Your task to perform on an android device: Open ESPN.com Image 0: 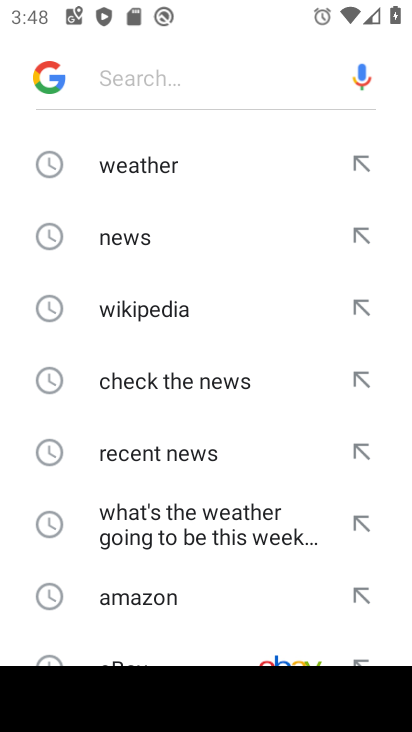
Step 0: press back button
Your task to perform on an android device: Open ESPN.com Image 1: 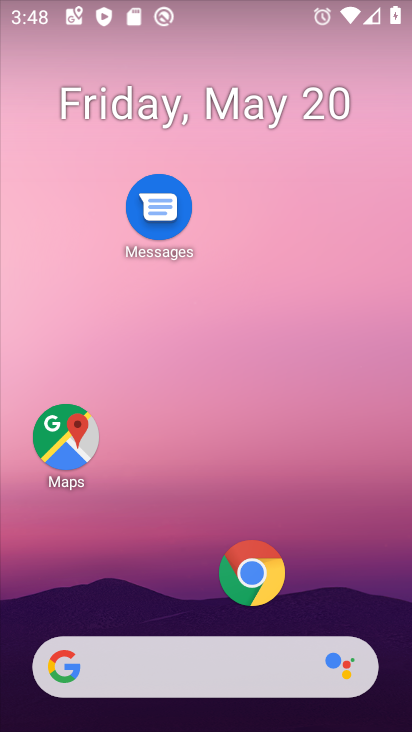
Step 1: click (254, 577)
Your task to perform on an android device: Open ESPN.com Image 2: 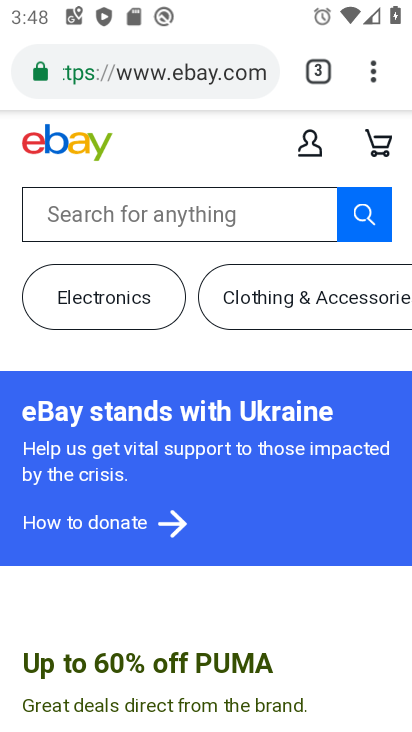
Step 2: click (319, 70)
Your task to perform on an android device: Open ESPN.com Image 3: 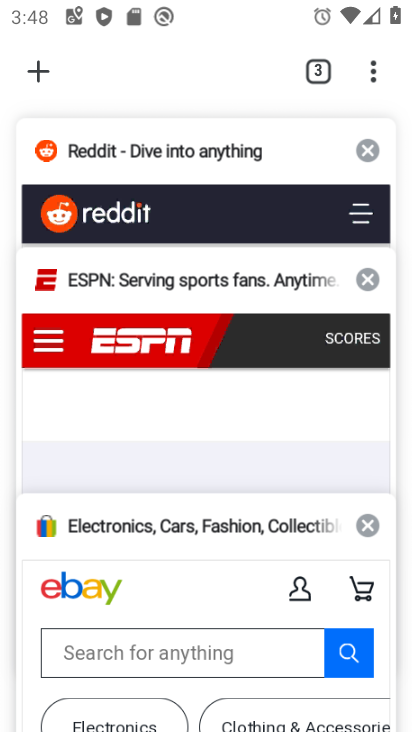
Step 3: click (123, 314)
Your task to perform on an android device: Open ESPN.com Image 4: 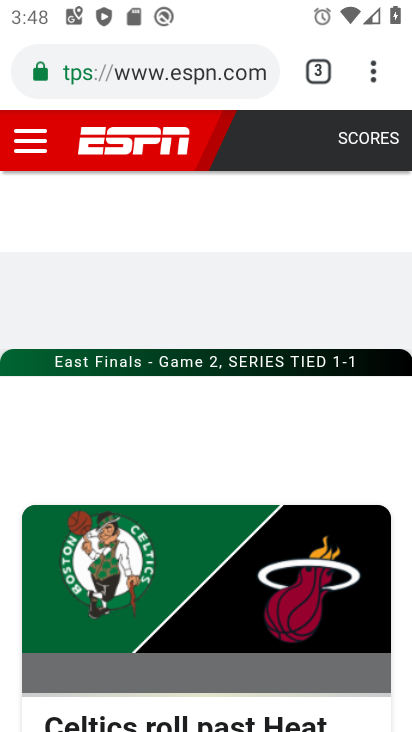
Step 4: task complete